Your task to perform on an android device: Open settings Image 0: 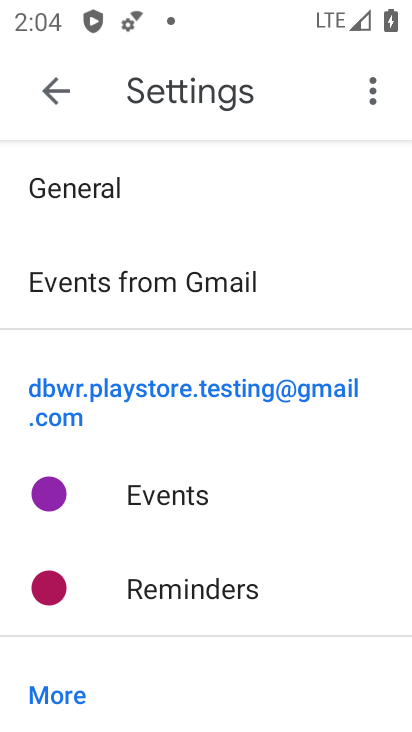
Step 0: press home button
Your task to perform on an android device: Open settings Image 1: 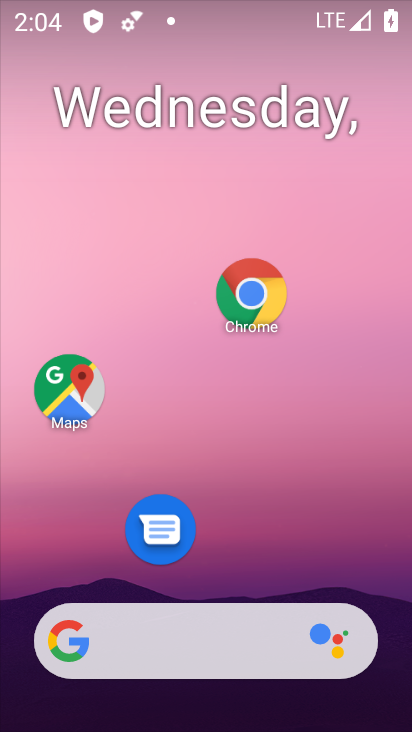
Step 1: drag from (289, 526) to (383, 19)
Your task to perform on an android device: Open settings Image 2: 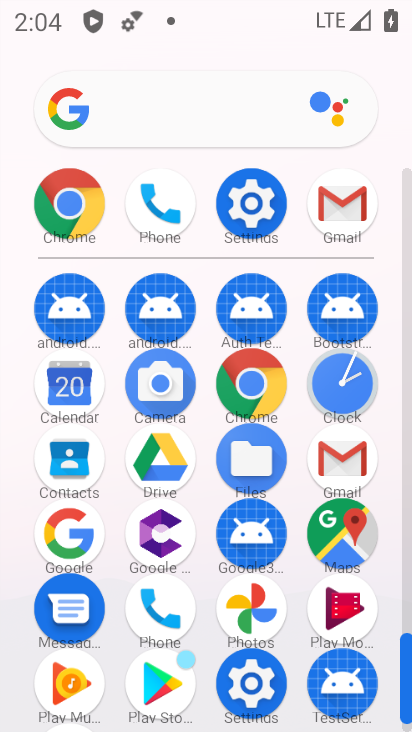
Step 2: click (252, 245)
Your task to perform on an android device: Open settings Image 3: 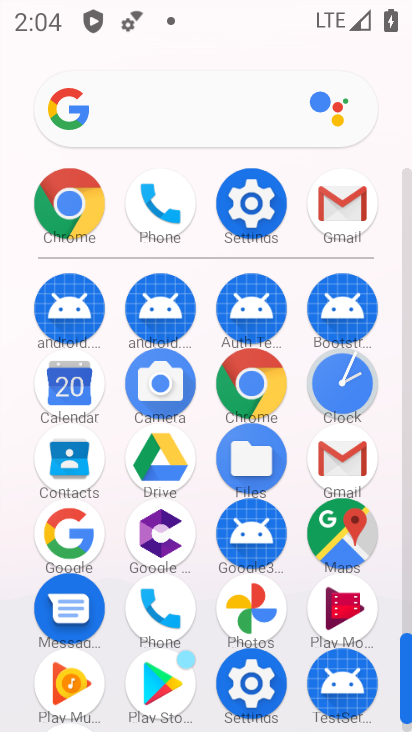
Step 3: click (257, 211)
Your task to perform on an android device: Open settings Image 4: 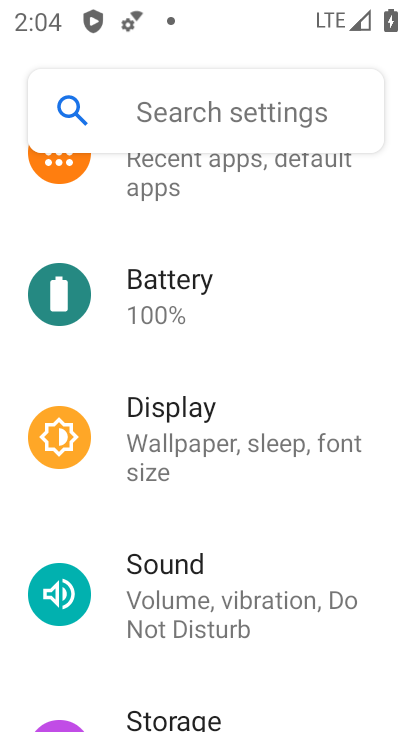
Step 4: task complete